Your task to perform on an android device: turn pop-ups off in chrome Image 0: 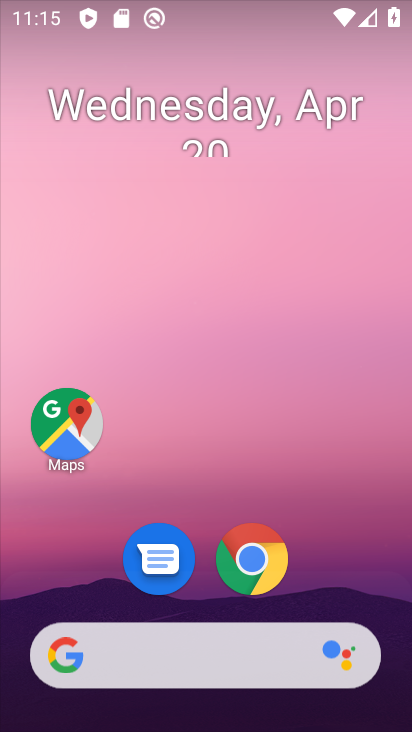
Step 0: click (245, 568)
Your task to perform on an android device: turn pop-ups off in chrome Image 1: 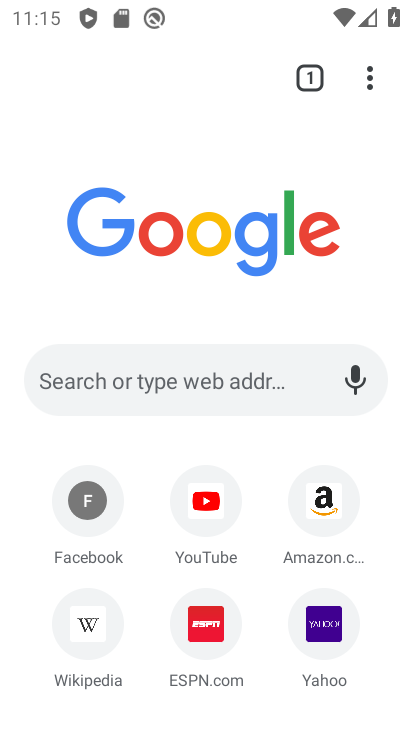
Step 1: click (372, 76)
Your task to perform on an android device: turn pop-ups off in chrome Image 2: 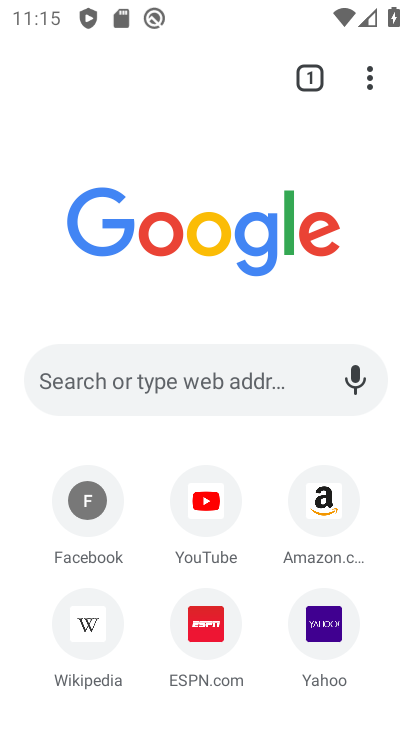
Step 2: click (363, 81)
Your task to perform on an android device: turn pop-ups off in chrome Image 3: 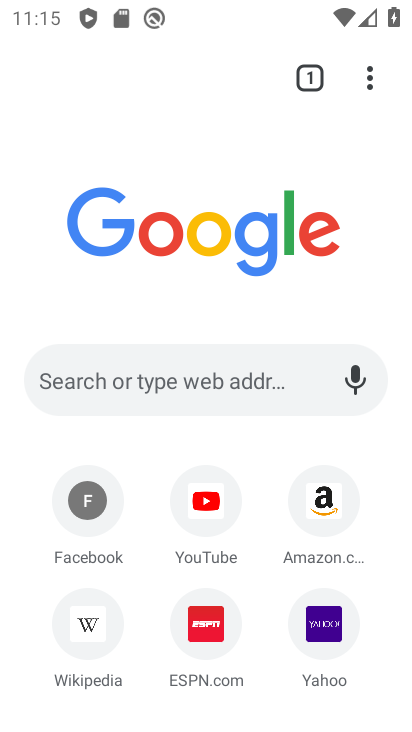
Step 3: click (368, 80)
Your task to perform on an android device: turn pop-ups off in chrome Image 4: 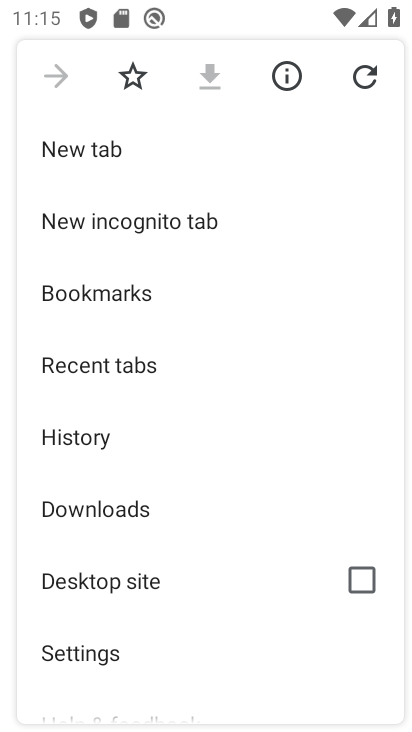
Step 4: click (157, 648)
Your task to perform on an android device: turn pop-ups off in chrome Image 5: 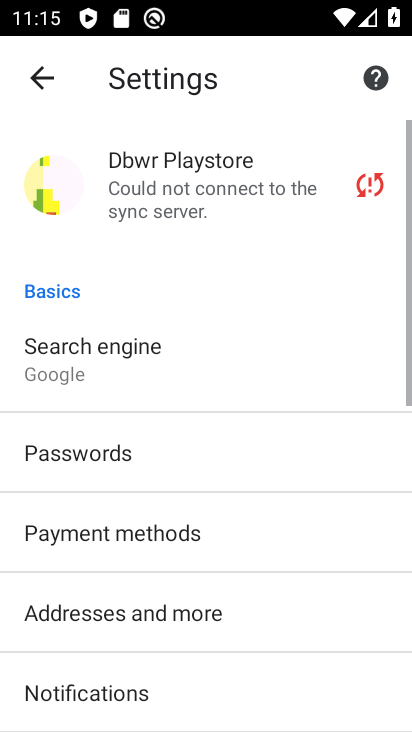
Step 5: drag from (215, 590) to (213, 125)
Your task to perform on an android device: turn pop-ups off in chrome Image 6: 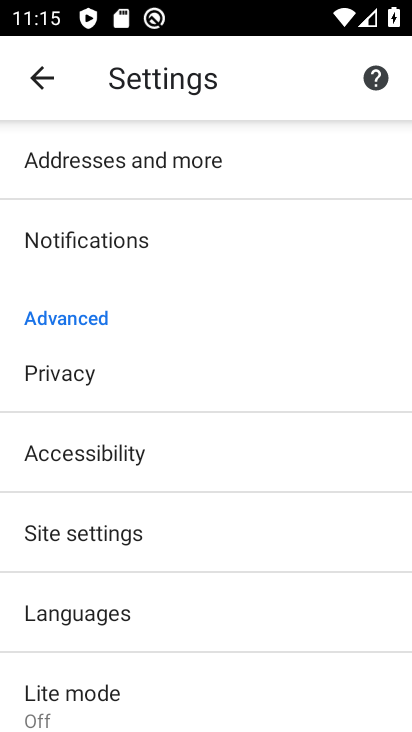
Step 6: click (180, 527)
Your task to perform on an android device: turn pop-ups off in chrome Image 7: 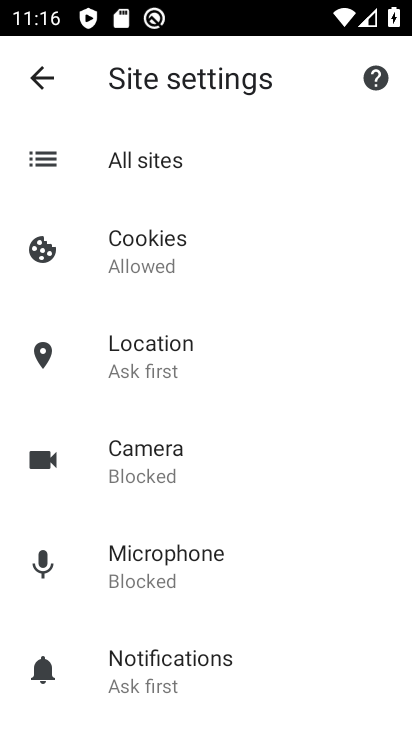
Step 7: drag from (235, 645) to (236, 166)
Your task to perform on an android device: turn pop-ups off in chrome Image 8: 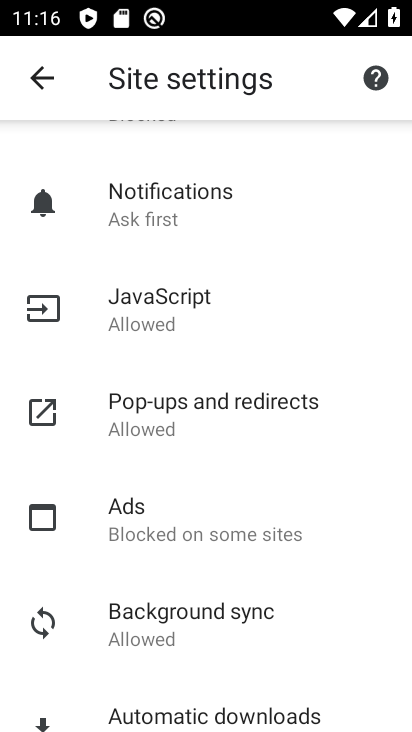
Step 8: click (215, 386)
Your task to perform on an android device: turn pop-ups off in chrome Image 9: 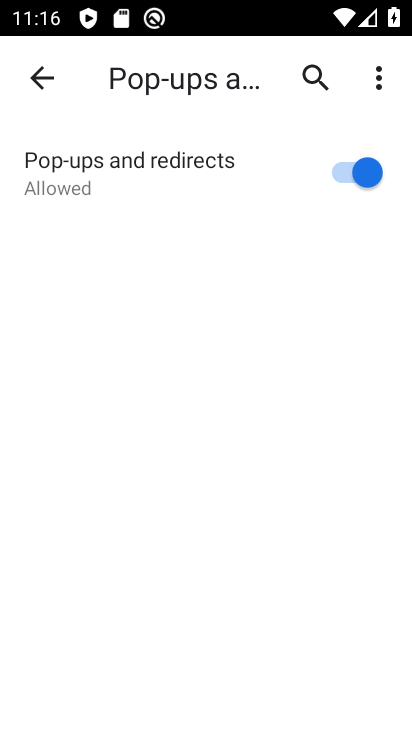
Step 9: click (344, 166)
Your task to perform on an android device: turn pop-ups off in chrome Image 10: 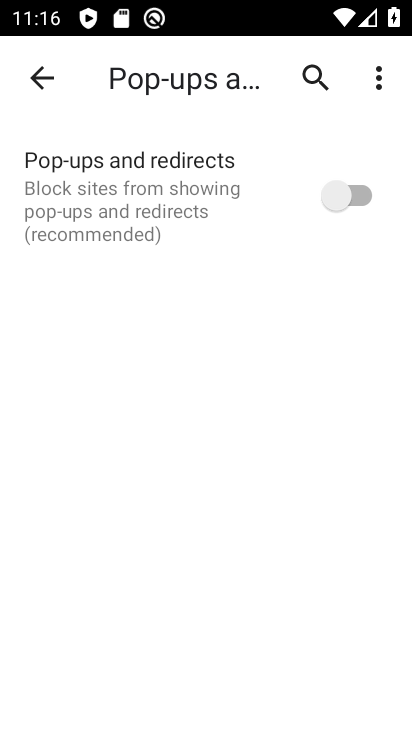
Step 10: task complete